Your task to perform on an android device: Open Google Chrome Image 0: 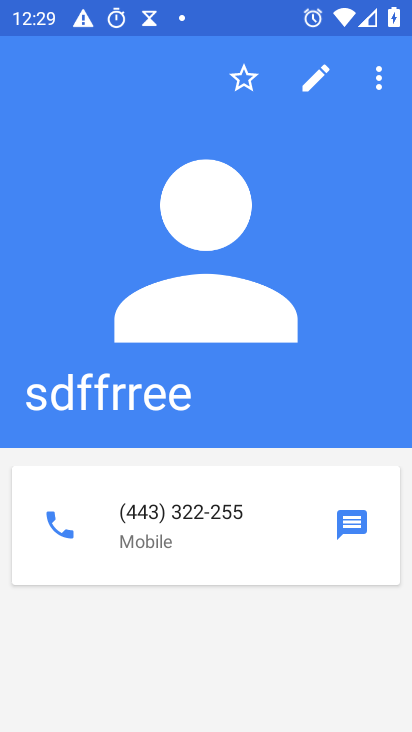
Step 0: press home button
Your task to perform on an android device: Open Google Chrome Image 1: 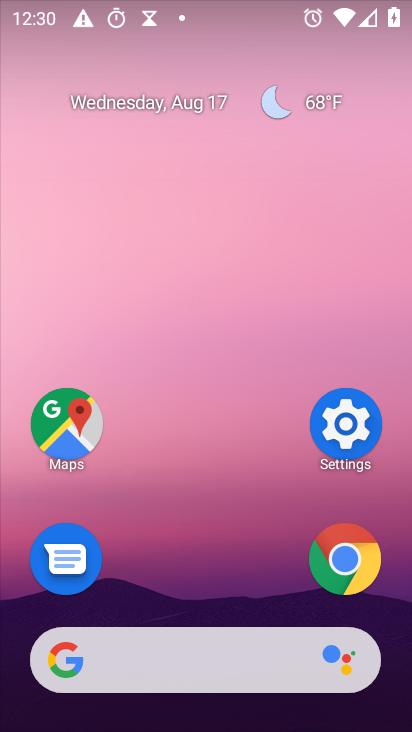
Step 1: click (355, 574)
Your task to perform on an android device: Open Google Chrome Image 2: 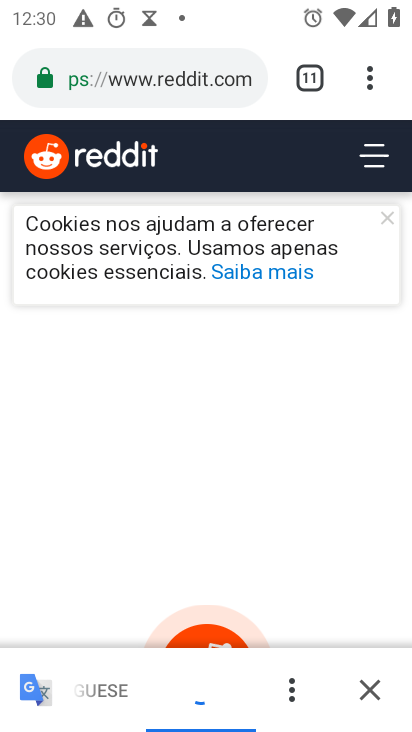
Step 2: task complete